Your task to perform on an android device: Open notification settings Image 0: 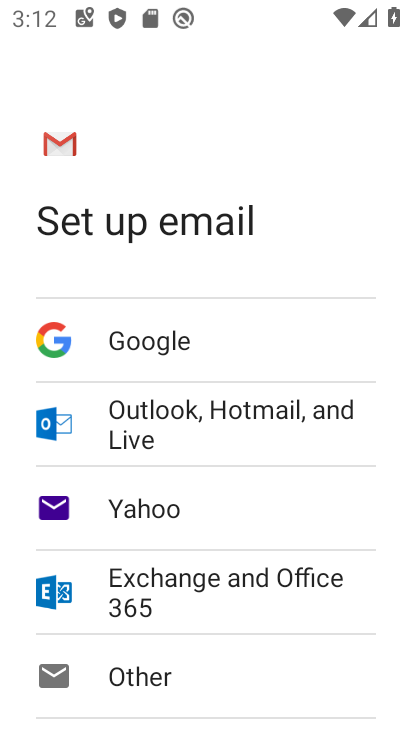
Step 0: press home button
Your task to perform on an android device: Open notification settings Image 1: 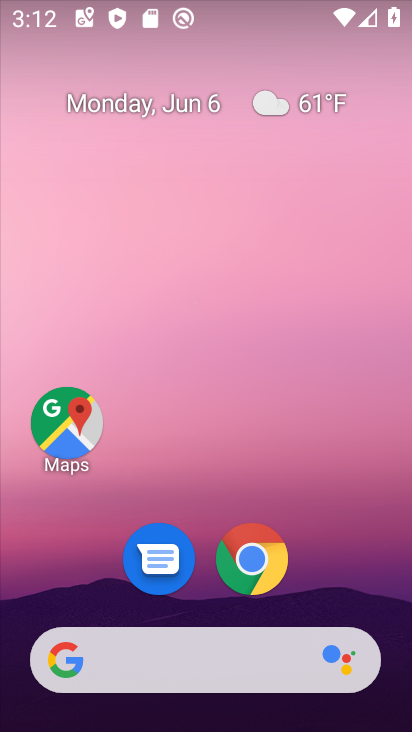
Step 1: drag from (183, 615) to (172, 77)
Your task to perform on an android device: Open notification settings Image 2: 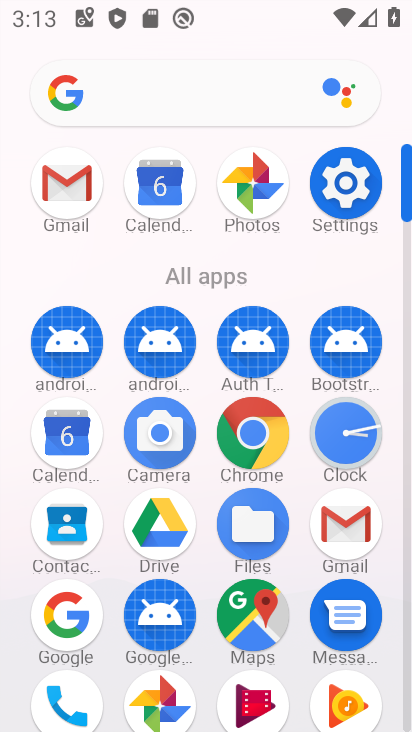
Step 2: click (327, 182)
Your task to perform on an android device: Open notification settings Image 3: 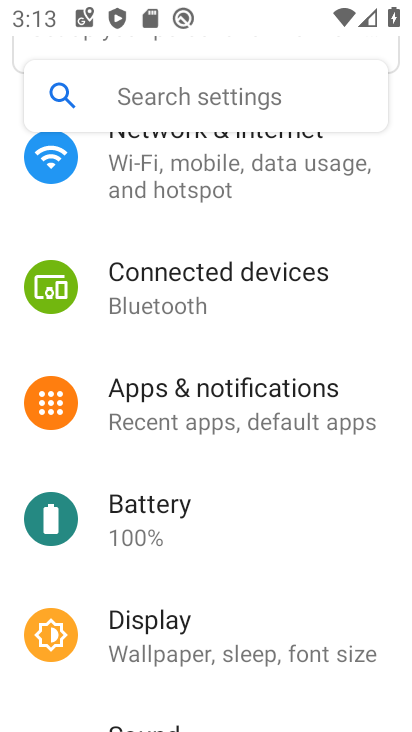
Step 3: click (240, 398)
Your task to perform on an android device: Open notification settings Image 4: 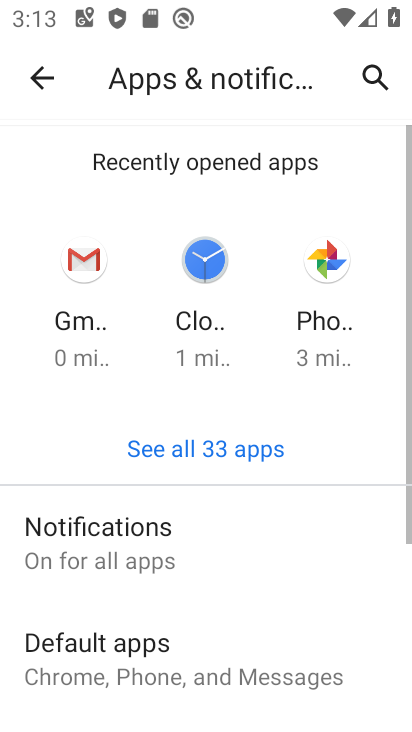
Step 4: click (153, 521)
Your task to perform on an android device: Open notification settings Image 5: 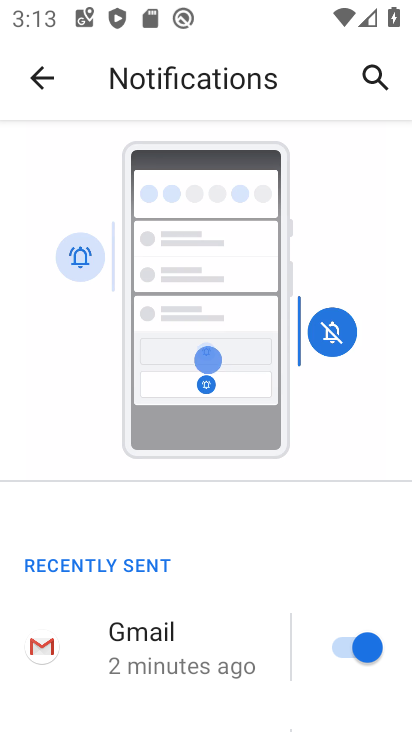
Step 5: task complete